Your task to perform on an android device: turn on notifications settings in the gmail app Image 0: 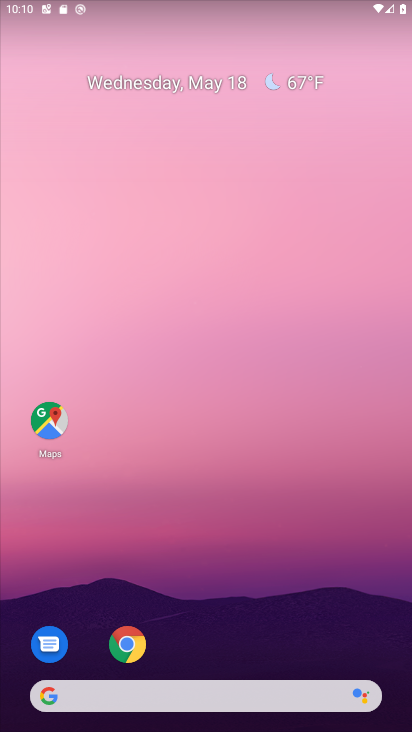
Step 0: drag from (185, 576) to (251, 37)
Your task to perform on an android device: turn on notifications settings in the gmail app Image 1: 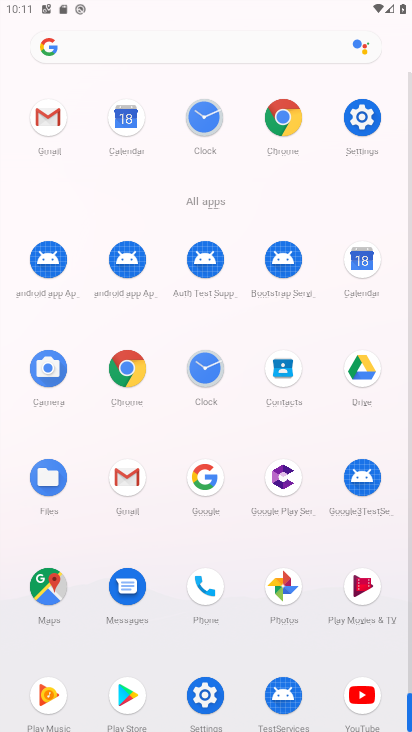
Step 1: click (124, 473)
Your task to perform on an android device: turn on notifications settings in the gmail app Image 2: 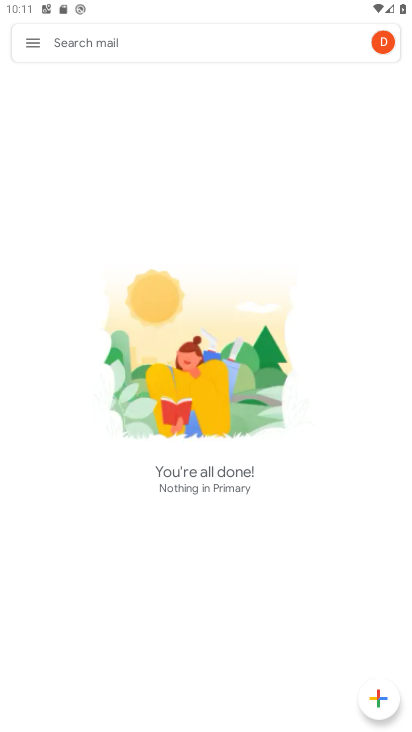
Step 2: click (34, 45)
Your task to perform on an android device: turn on notifications settings in the gmail app Image 3: 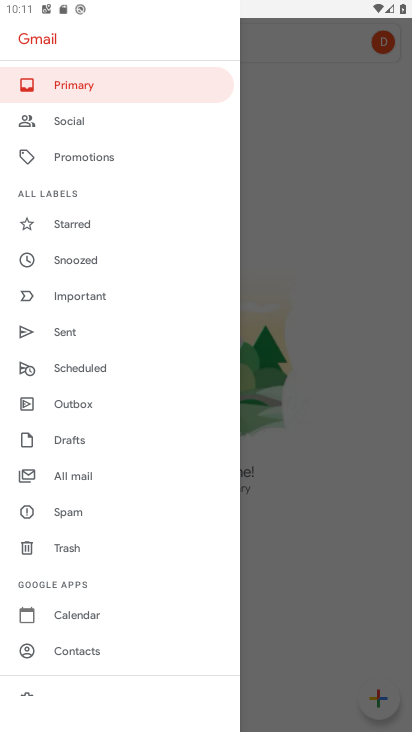
Step 3: drag from (100, 524) to (128, 395)
Your task to perform on an android device: turn on notifications settings in the gmail app Image 4: 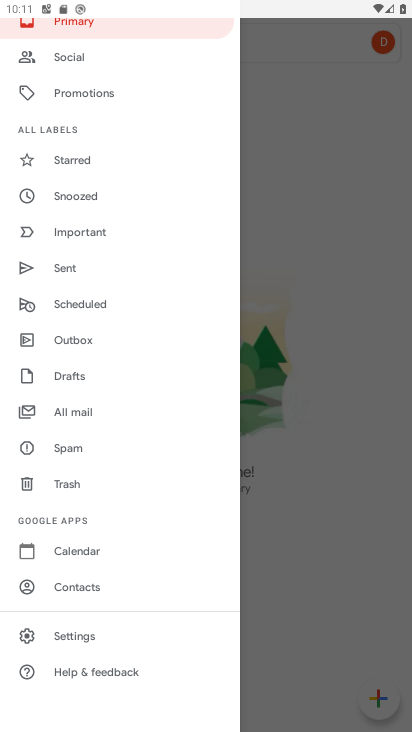
Step 4: click (76, 636)
Your task to perform on an android device: turn on notifications settings in the gmail app Image 5: 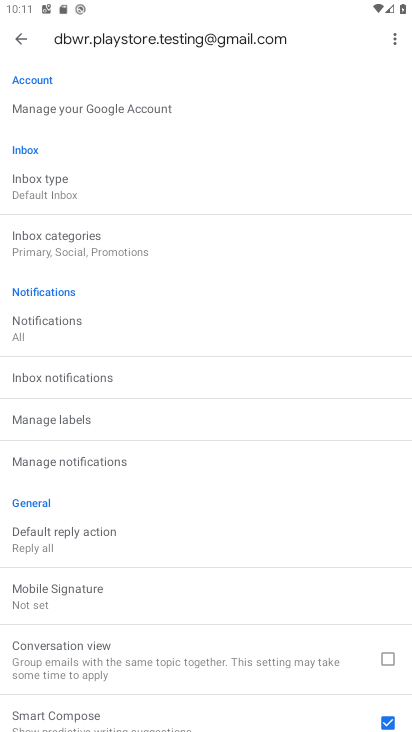
Step 5: click (55, 468)
Your task to perform on an android device: turn on notifications settings in the gmail app Image 6: 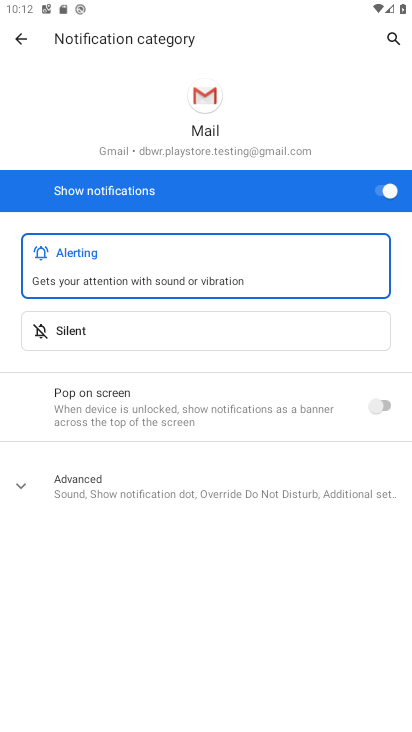
Step 6: task complete